Your task to perform on an android device: Clear all items from cart on costco.com. Add razer blade to the cart on costco.com, then select checkout. Image 0: 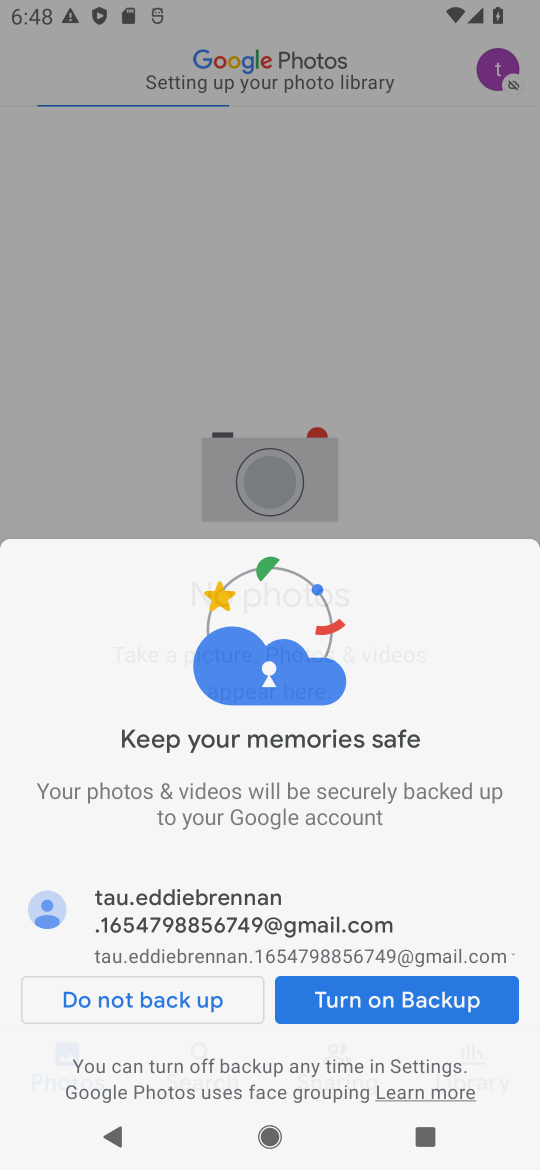
Step 0: press home button
Your task to perform on an android device: Clear all items from cart on costco.com. Add razer blade to the cart on costco.com, then select checkout. Image 1: 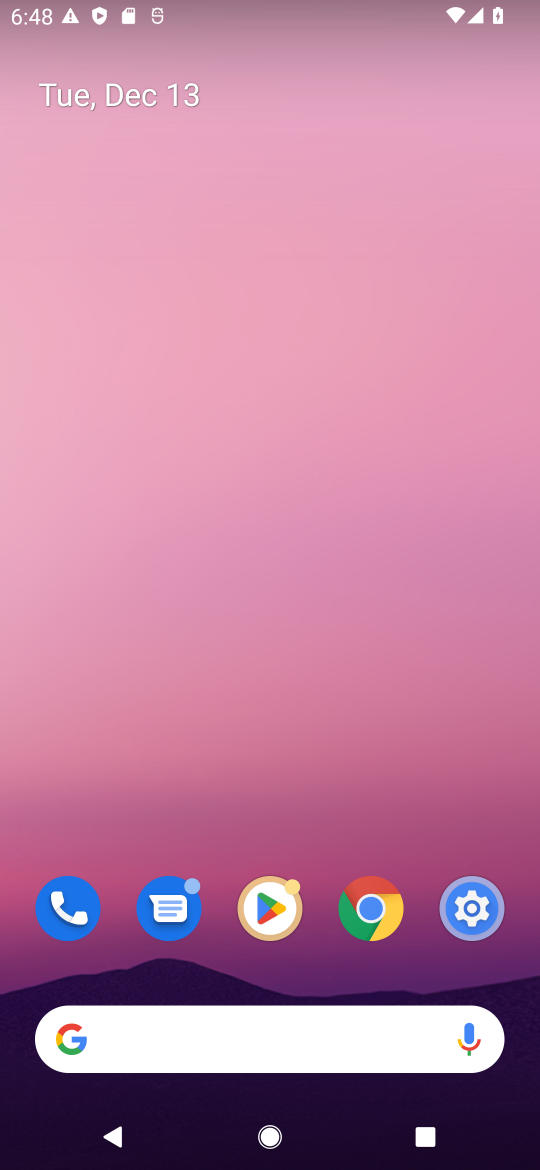
Step 1: click (106, 1039)
Your task to perform on an android device: Clear all items from cart on costco.com. Add razer blade to the cart on costco.com, then select checkout. Image 2: 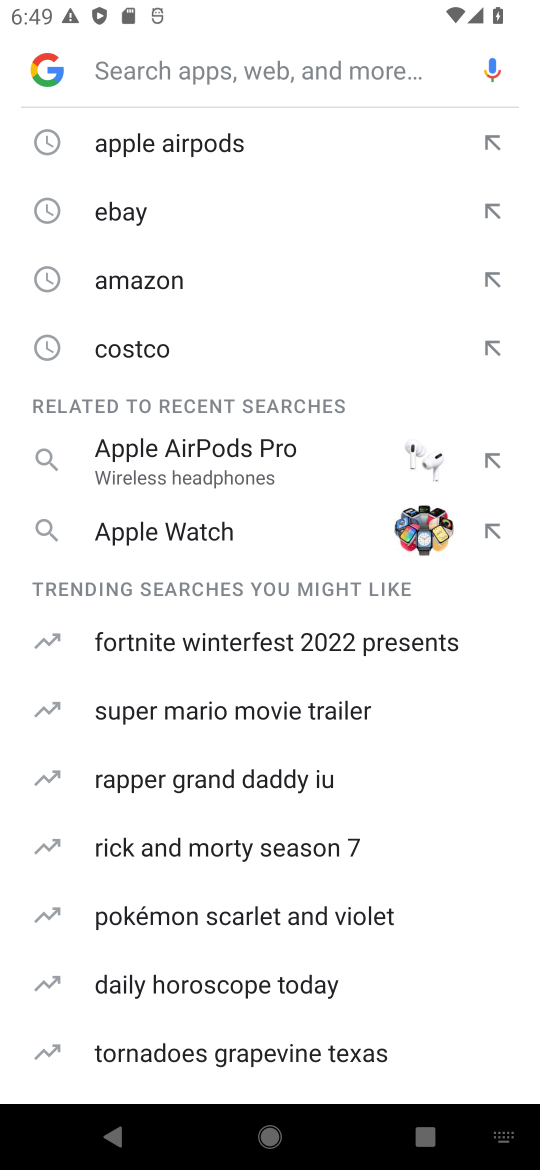
Step 2: type "costco.com"
Your task to perform on an android device: Clear all items from cart on costco.com. Add razer blade to the cart on costco.com, then select checkout. Image 3: 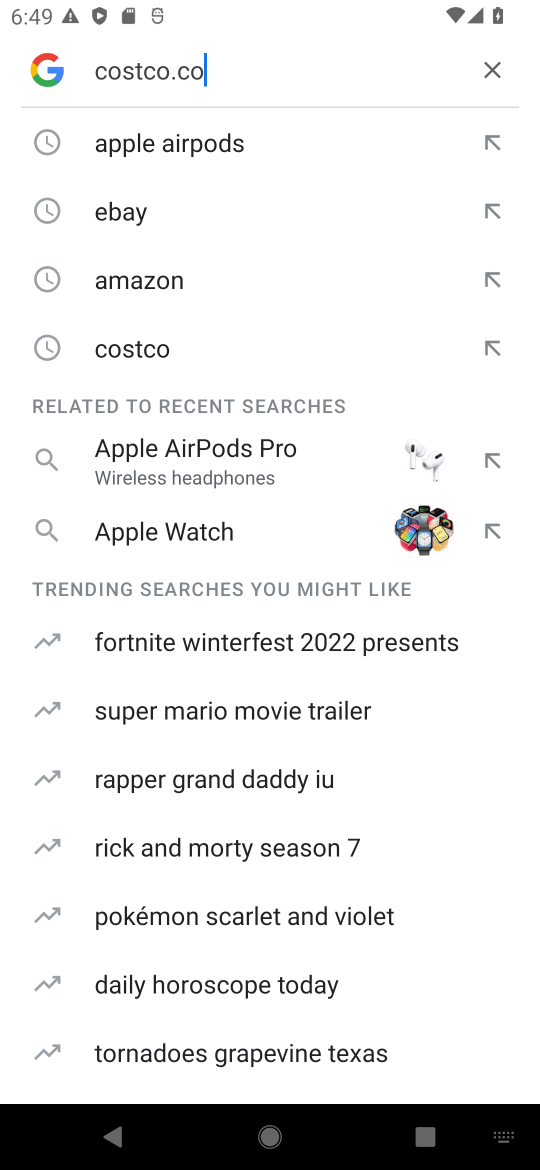
Step 3: press enter
Your task to perform on an android device: Clear all items from cart on costco.com. Add razer blade to the cart on costco.com, then select checkout. Image 4: 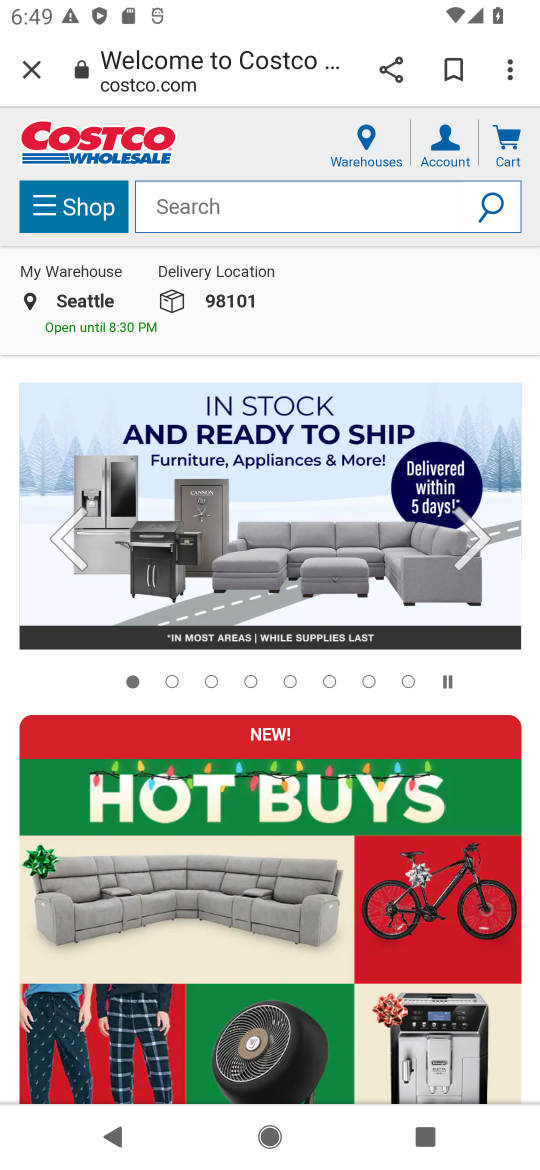
Step 4: click (507, 139)
Your task to perform on an android device: Clear all items from cart on costco.com. Add razer blade to the cart on costco.com, then select checkout. Image 5: 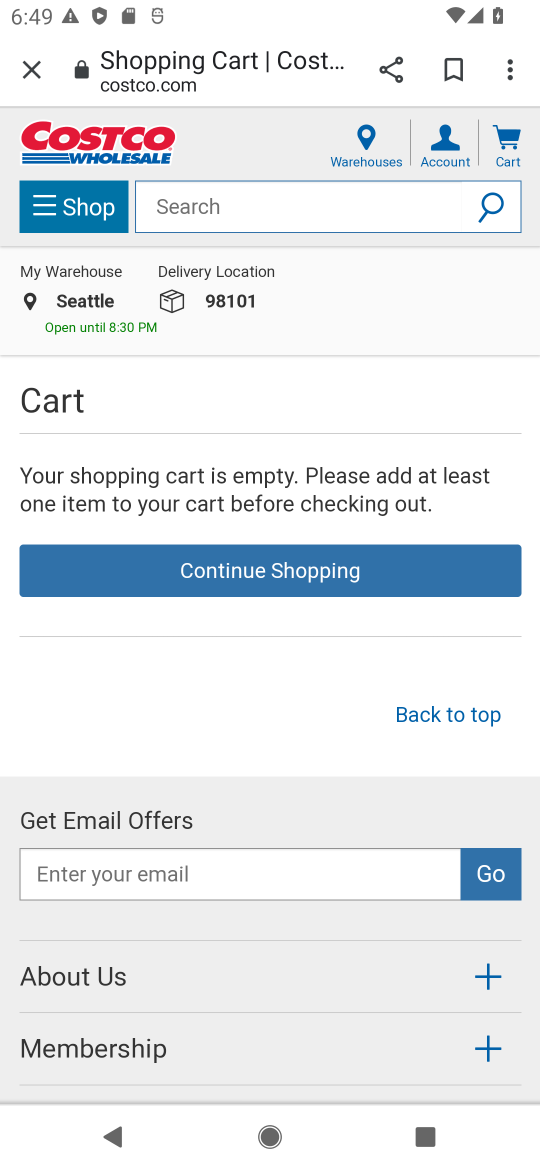
Step 5: click (225, 210)
Your task to perform on an android device: Clear all items from cart on costco.com. Add razer blade to the cart on costco.com, then select checkout. Image 6: 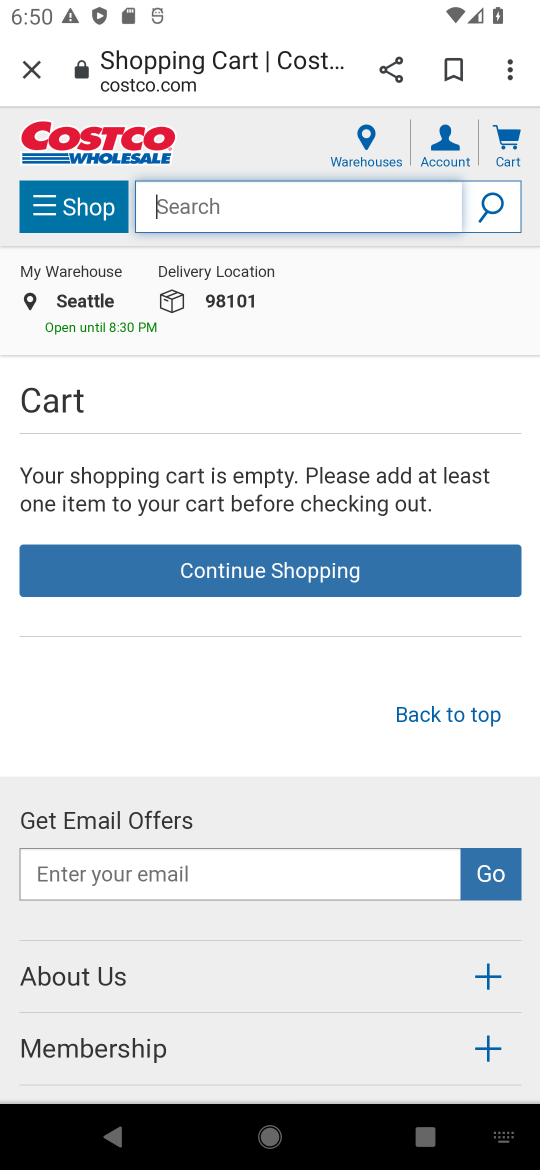
Step 6: type "razer blade"
Your task to perform on an android device: Clear all items from cart on costco.com. Add razer blade to the cart on costco.com, then select checkout. Image 7: 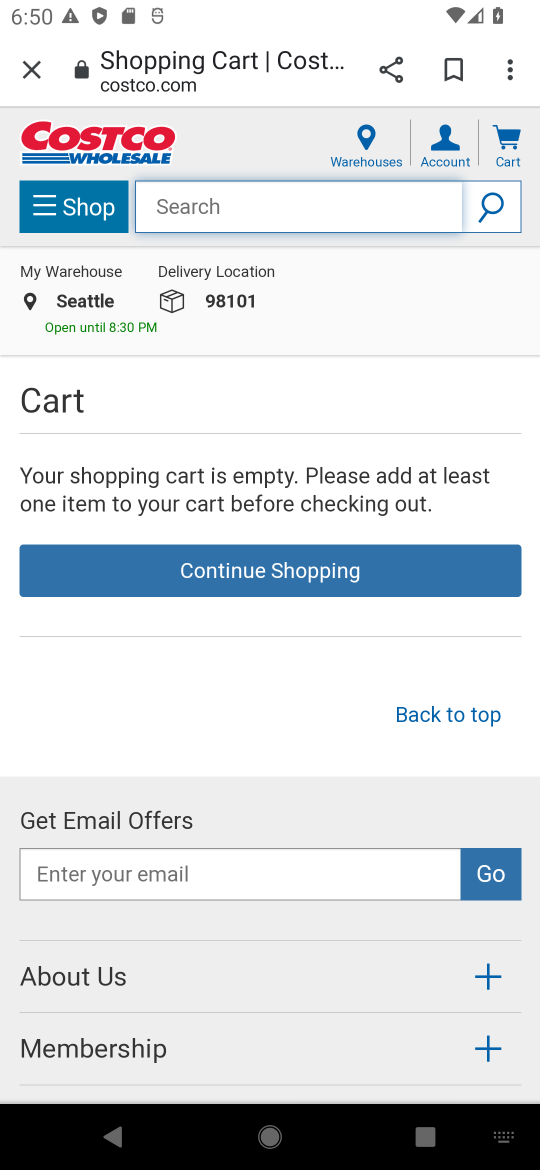
Step 7: press enter
Your task to perform on an android device: Clear all items from cart on costco.com. Add razer blade to the cart on costco.com, then select checkout. Image 8: 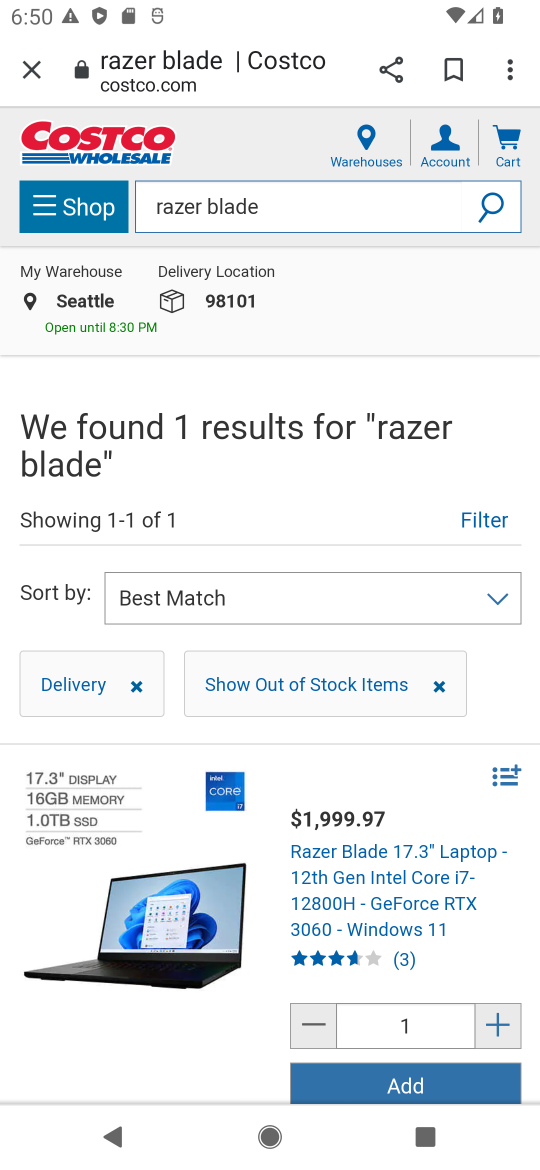
Step 8: drag from (332, 920) to (357, 416)
Your task to perform on an android device: Clear all items from cart on costco.com. Add razer blade to the cart on costco.com, then select checkout. Image 9: 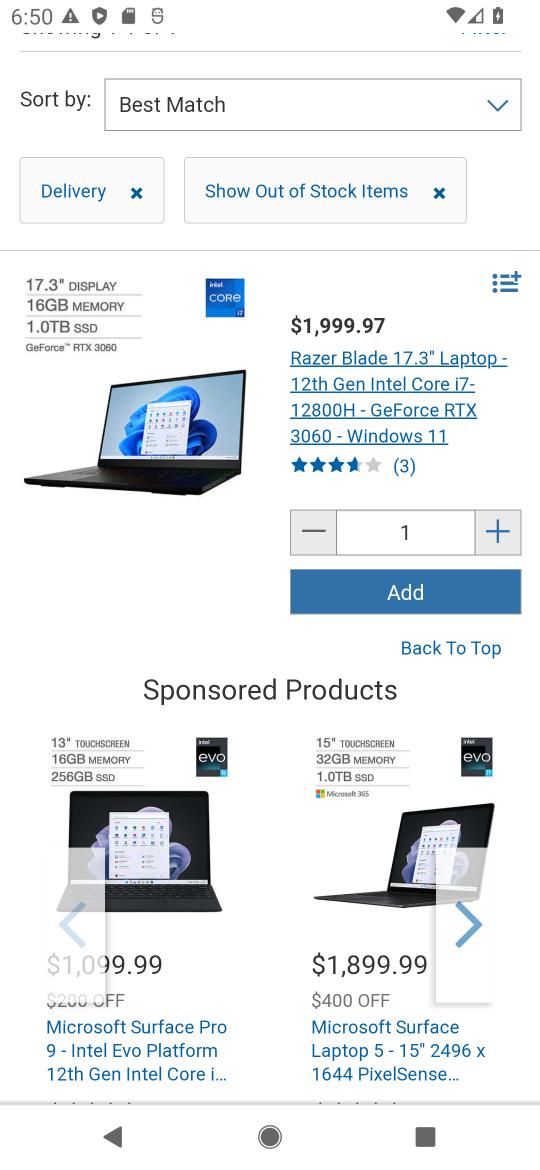
Step 9: click (393, 596)
Your task to perform on an android device: Clear all items from cart on costco.com. Add razer blade to the cart on costco.com, then select checkout. Image 10: 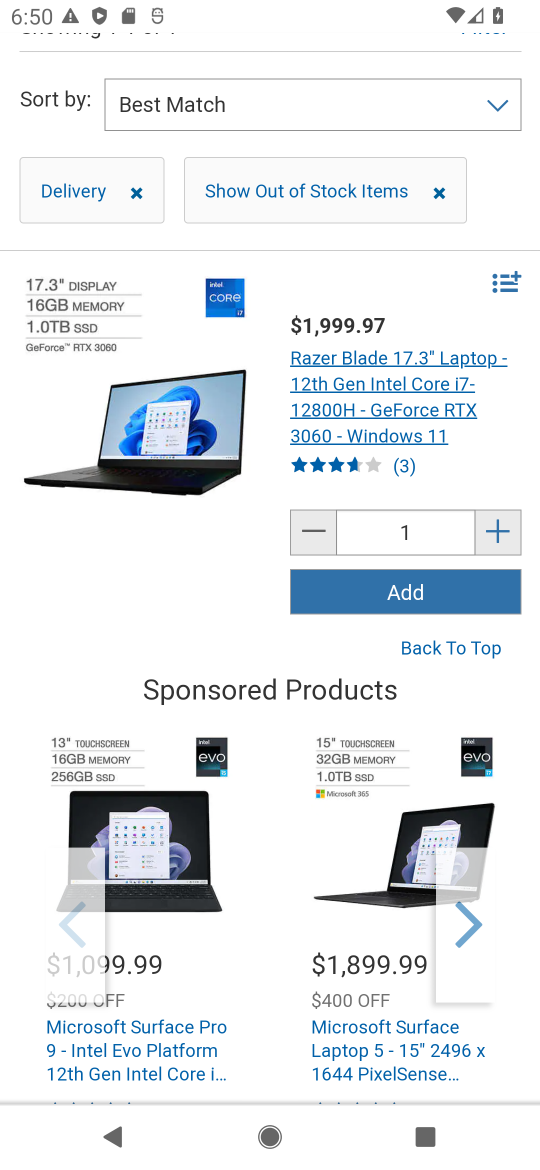
Step 10: click (415, 592)
Your task to perform on an android device: Clear all items from cart on costco.com. Add razer blade to the cart on costco.com, then select checkout. Image 11: 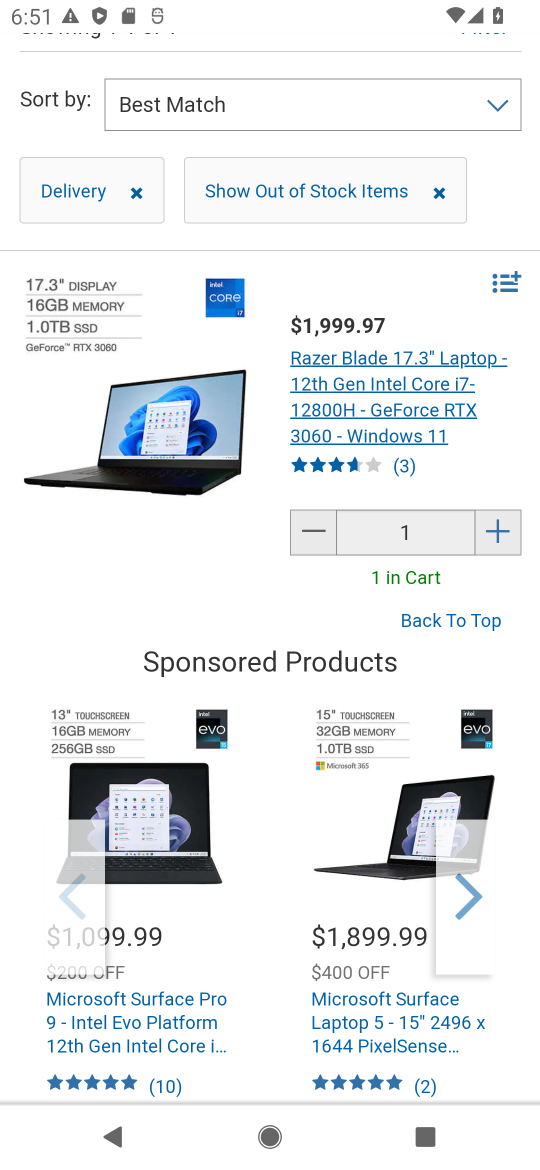
Step 11: drag from (274, 777) to (272, 417)
Your task to perform on an android device: Clear all items from cart on costco.com. Add razer blade to the cart on costco.com, then select checkout. Image 12: 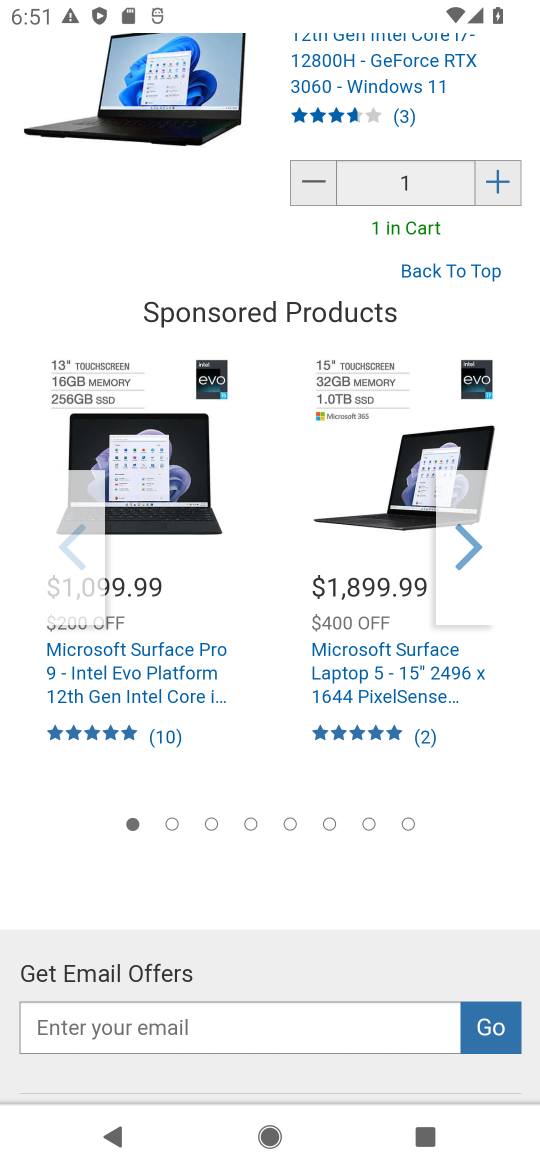
Step 12: drag from (254, 125) to (262, 689)
Your task to perform on an android device: Clear all items from cart on costco.com. Add razer blade to the cart on costco.com, then select checkout. Image 13: 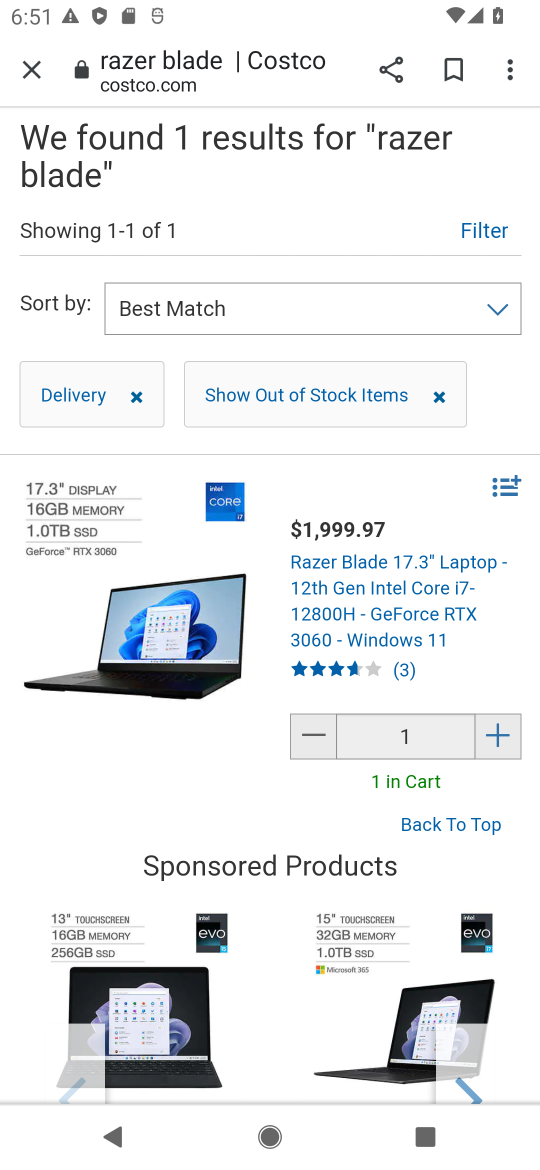
Step 13: drag from (315, 209) to (343, 739)
Your task to perform on an android device: Clear all items from cart on costco.com. Add razer blade to the cart on costco.com, then select checkout. Image 14: 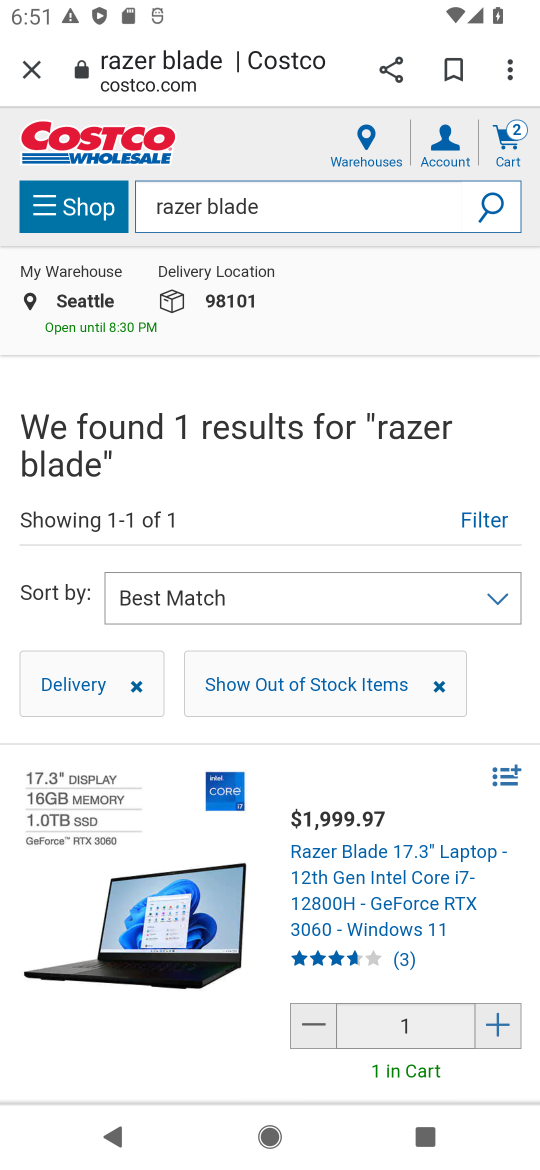
Step 14: click (510, 131)
Your task to perform on an android device: Clear all items from cart on costco.com. Add razer blade to the cart on costco.com, then select checkout. Image 15: 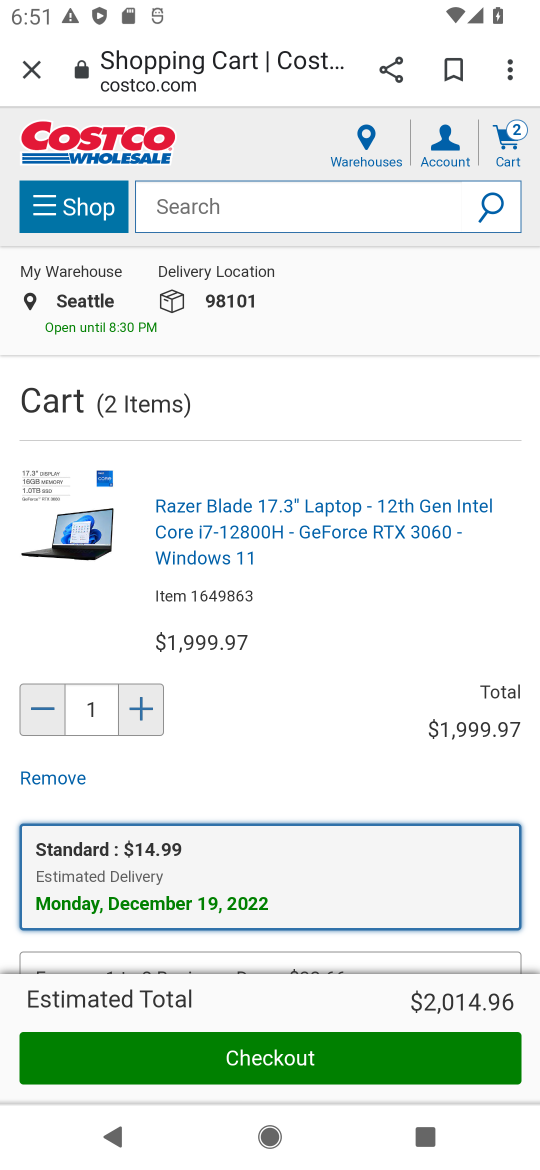
Step 15: click (285, 1057)
Your task to perform on an android device: Clear all items from cart on costco.com. Add razer blade to the cart on costco.com, then select checkout. Image 16: 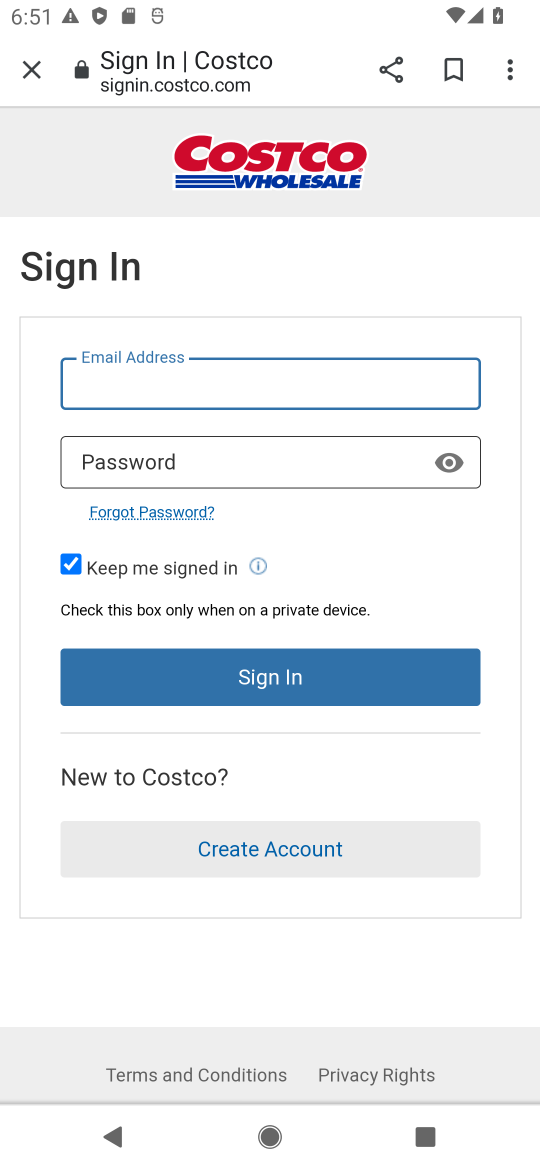
Step 16: task complete